Your task to perform on an android device: What's the weather going to be this weekend? Image 0: 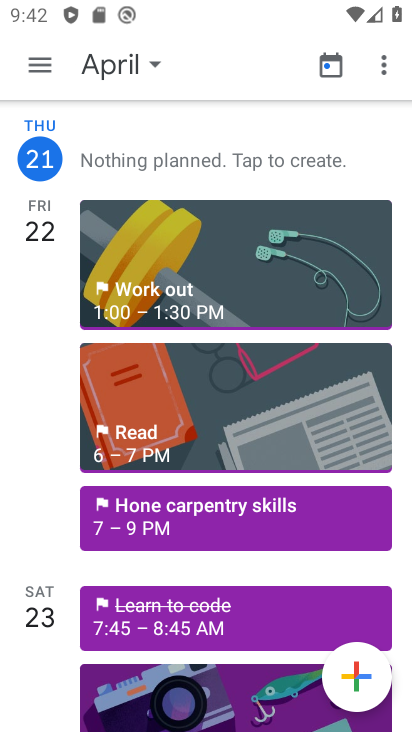
Step 0: press home button
Your task to perform on an android device: What's the weather going to be this weekend? Image 1: 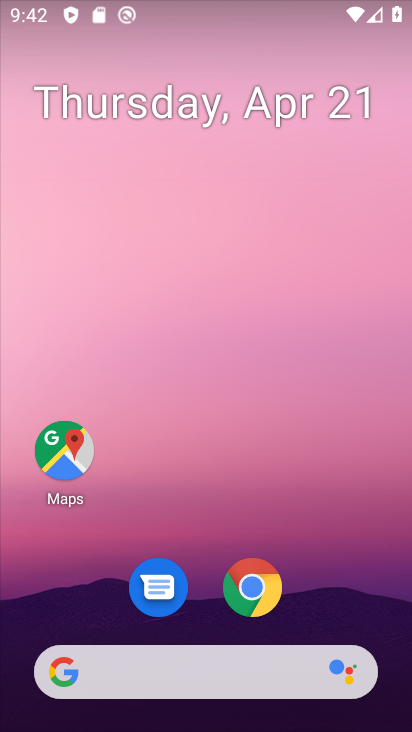
Step 1: click (271, 660)
Your task to perform on an android device: What's the weather going to be this weekend? Image 2: 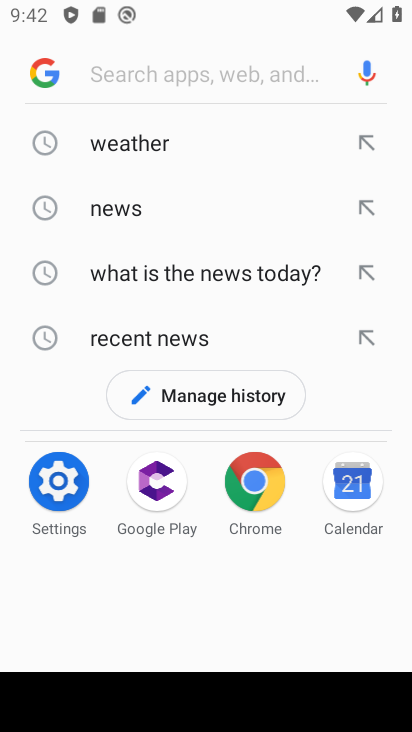
Step 2: click (146, 139)
Your task to perform on an android device: What's the weather going to be this weekend? Image 3: 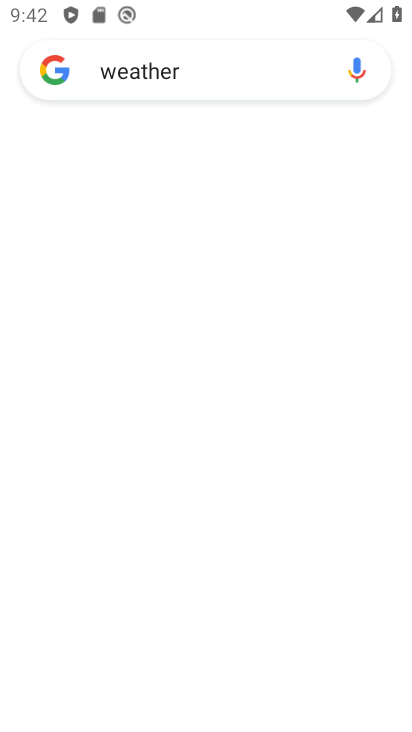
Step 3: click (146, 139)
Your task to perform on an android device: What's the weather going to be this weekend? Image 4: 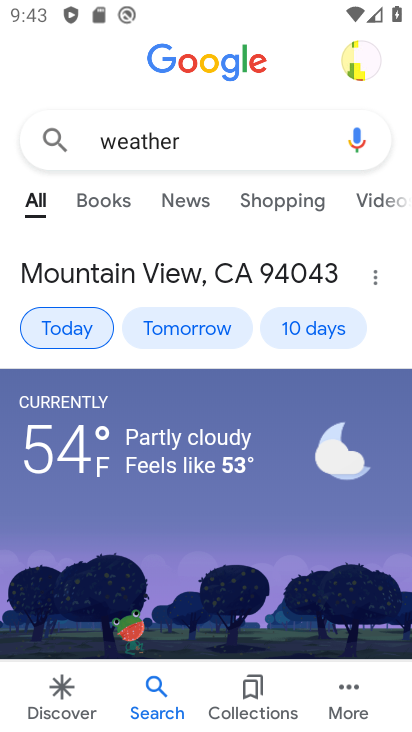
Step 4: click (326, 324)
Your task to perform on an android device: What's the weather going to be this weekend? Image 5: 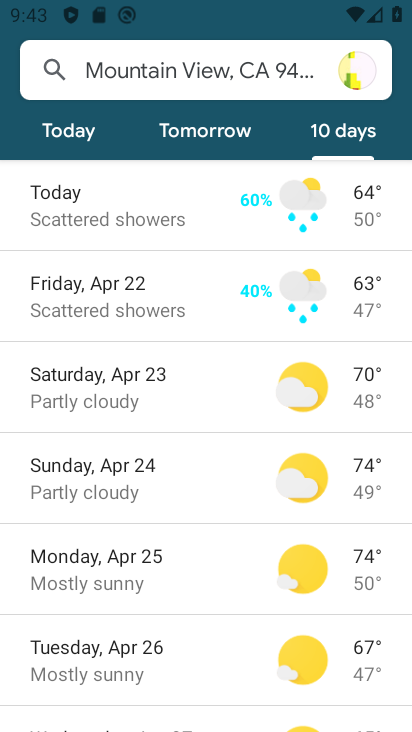
Step 5: task complete